Your task to perform on an android device: open app "Instagram" (install if not already installed) and go to login screen Image 0: 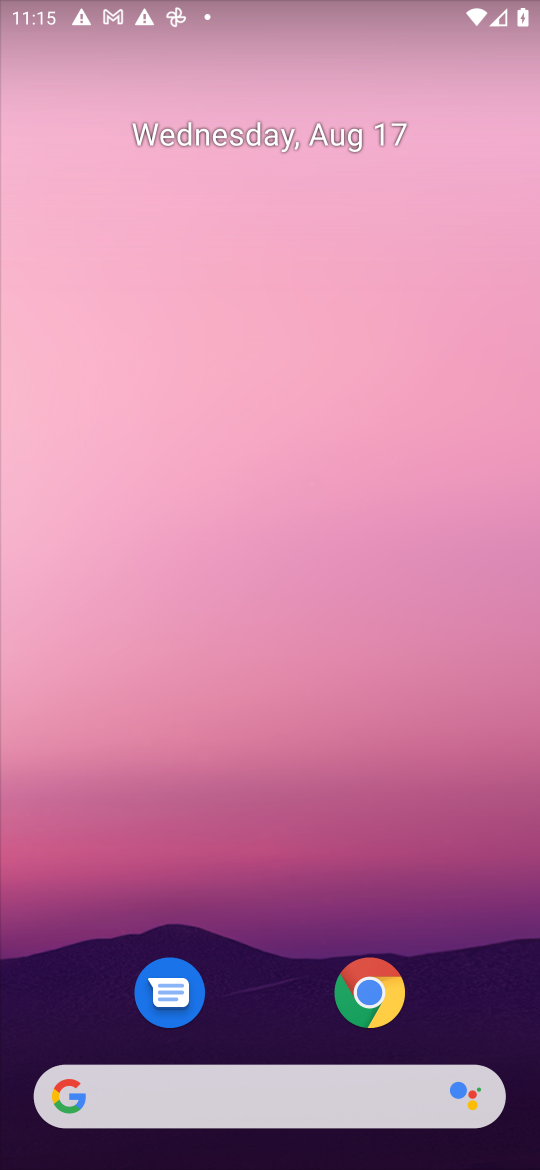
Step 0: drag from (490, 841) to (312, 12)
Your task to perform on an android device: open app "Instagram" (install if not already installed) and go to login screen Image 1: 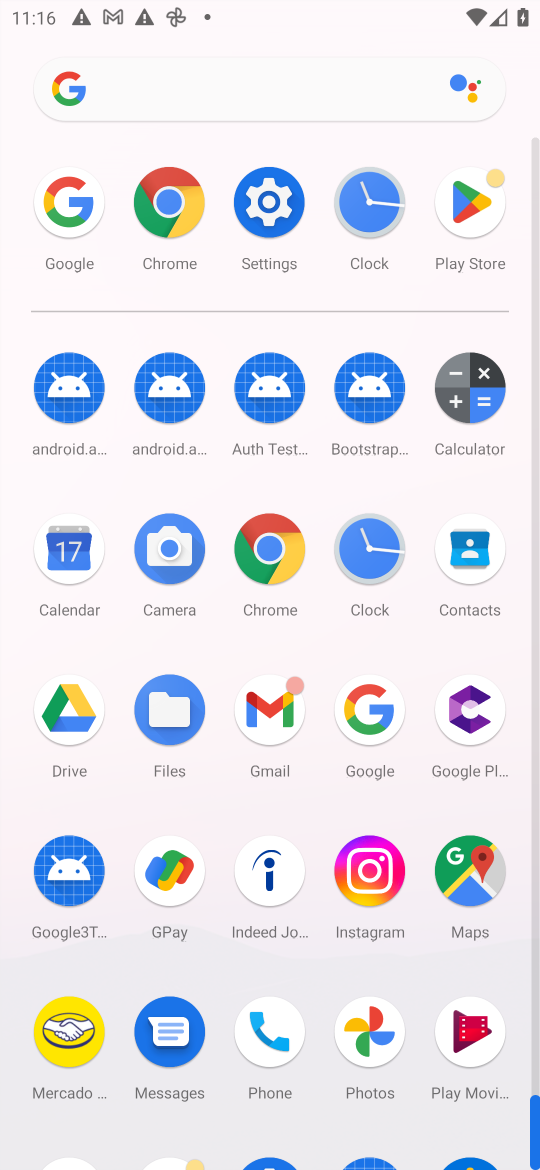
Step 1: click (461, 212)
Your task to perform on an android device: open app "Instagram" (install if not already installed) and go to login screen Image 2: 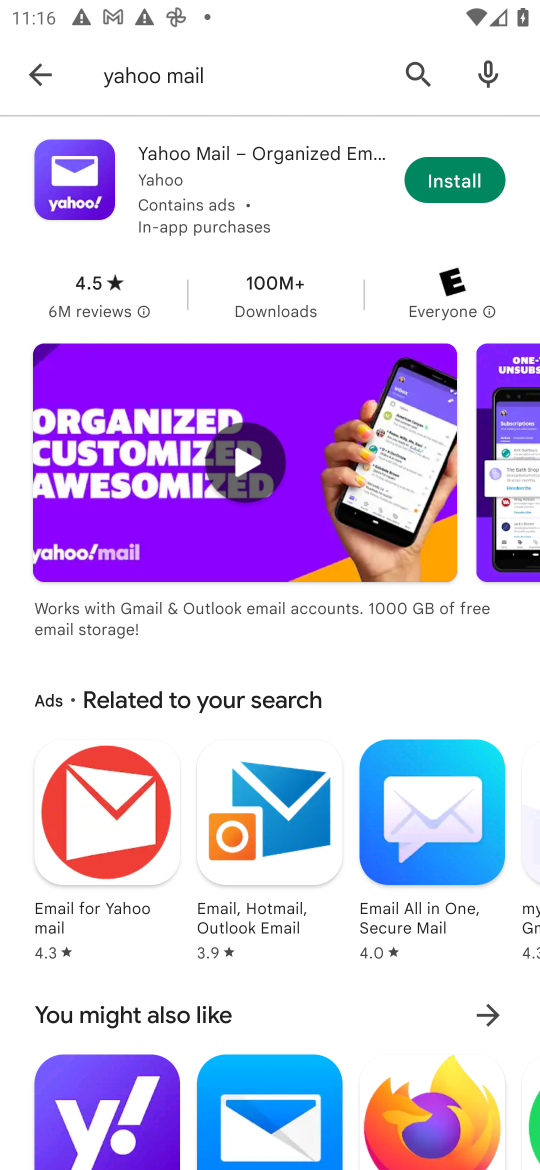
Step 2: press back button
Your task to perform on an android device: open app "Instagram" (install if not already installed) and go to login screen Image 3: 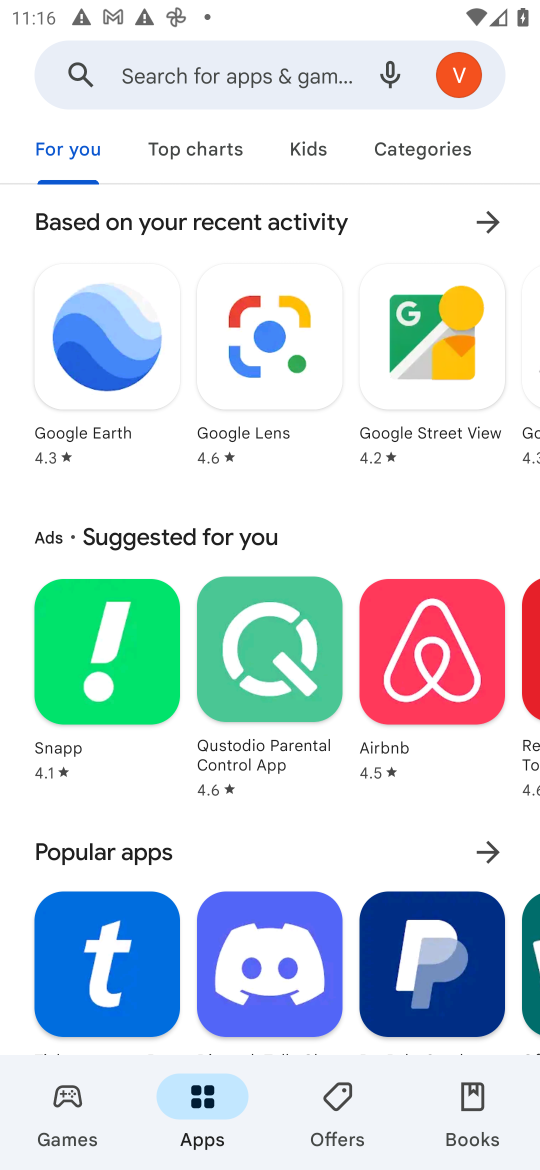
Step 3: click (188, 52)
Your task to perform on an android device: open app "Instagram" (install if not already installed) and go to login screen Image 4: 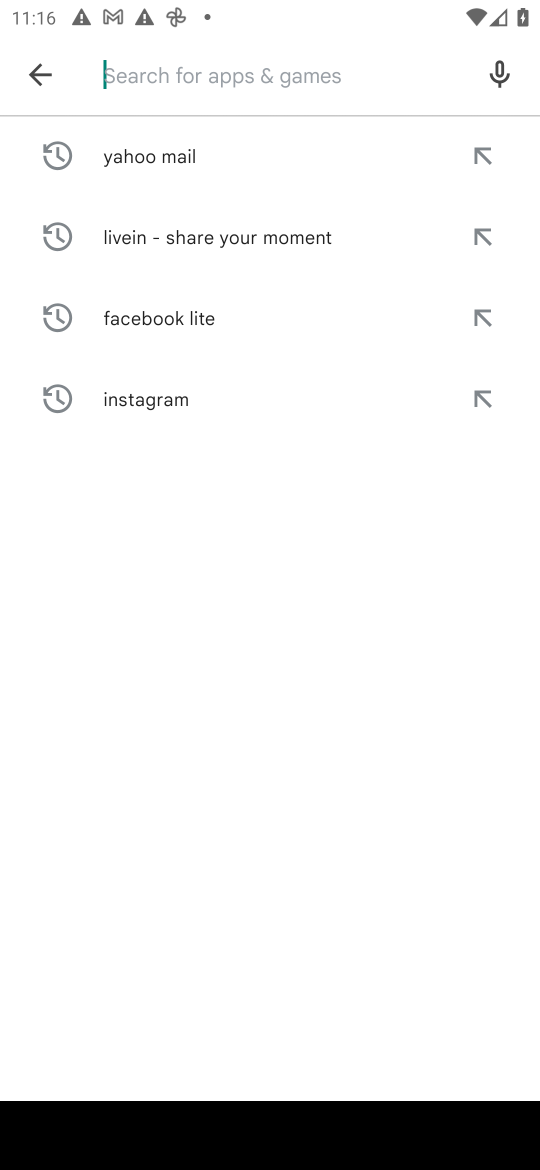
Step 4: type "Instagram"
Your task to perform on an android device: open app "Instagram" (install if not already installed) and go to login screen Image 5: 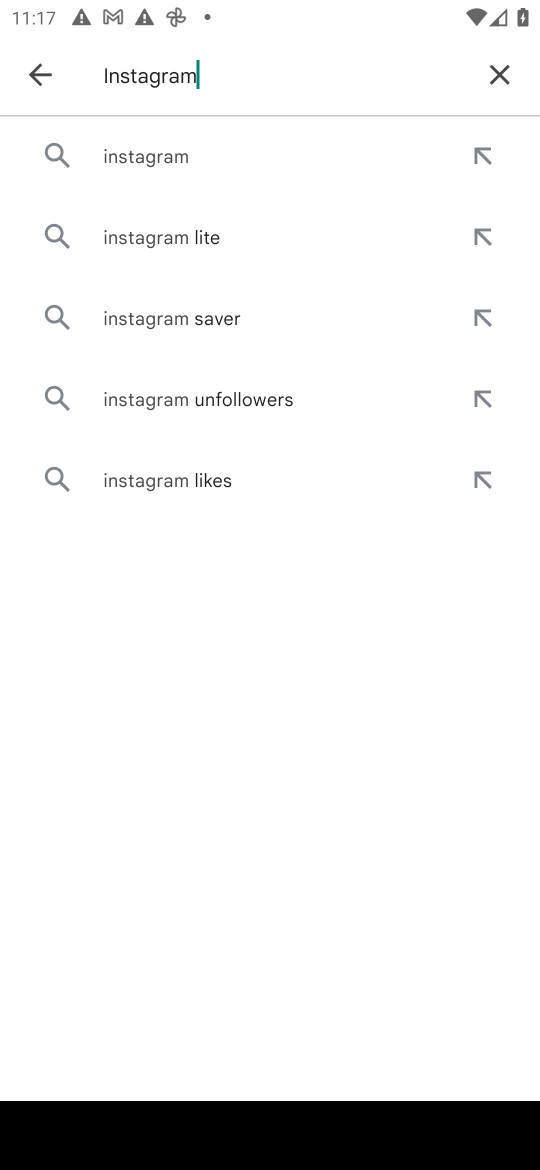
Step 5: click (167, 154)
Your task to perform on an android device: open app "Instagram" (install if not already installed) and go to login screen Image 6: 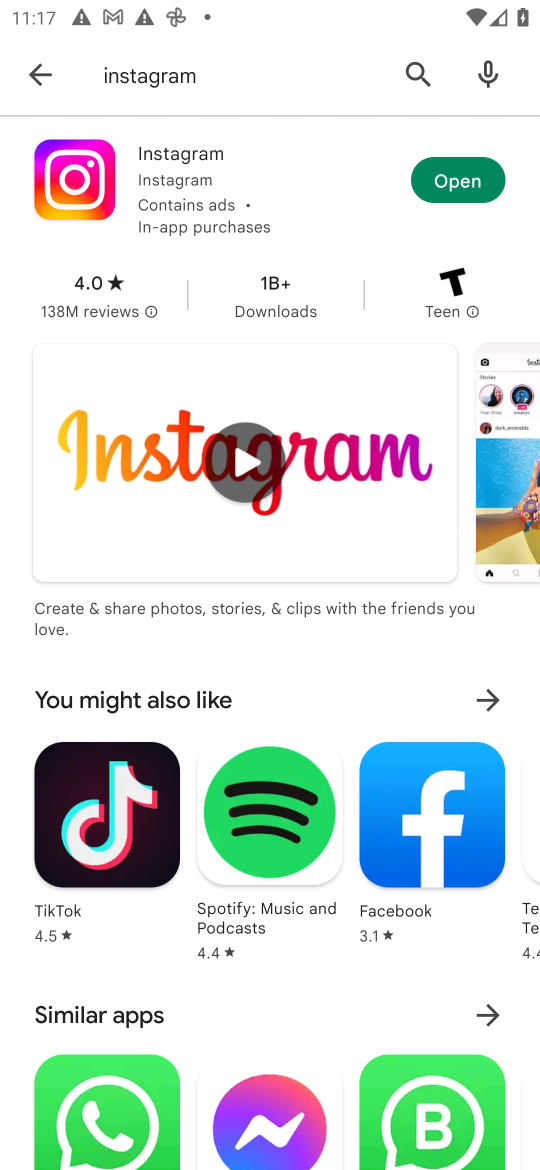
Step 6: task complete